Your task to perform on an android device: open wifi settings Image 0: 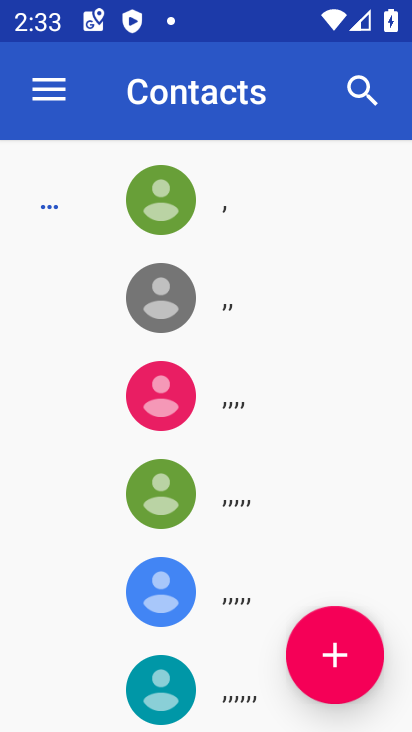
Step 0: press home button
Your task to perform on an android device: open wifi settings Image 1: 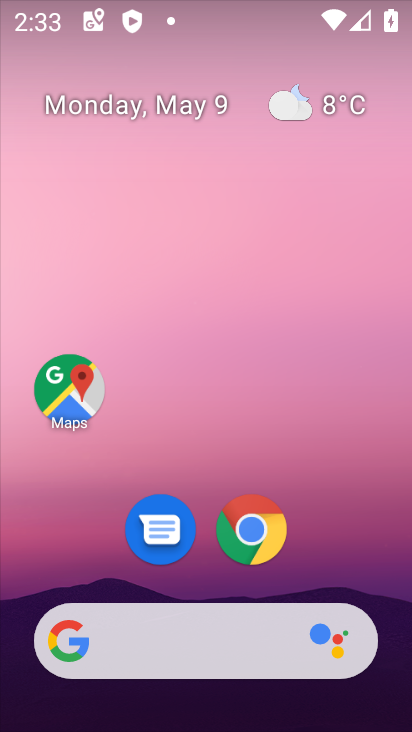
Step 1: drag from (288, 711) to (372, 0)
Your task to perform on an android device: open wifi settings Image 2: 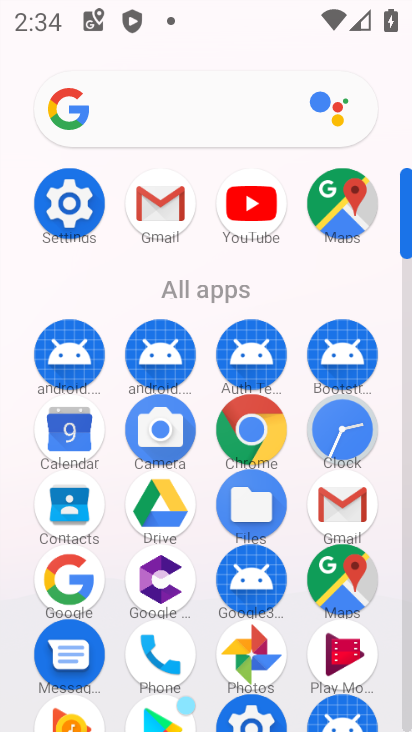
Step 2: click (94, 182)
Your task to perform on an android device: open wifi settings Image 3: 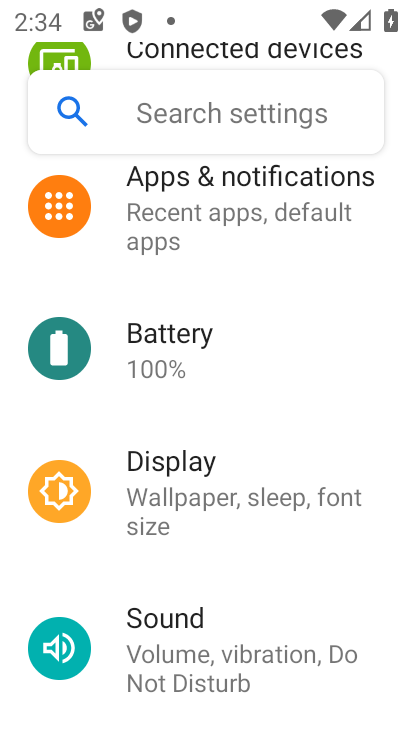
Step 3: drag from (227, 281) to (193, 650)
Your task to perform on an android device: open wifi settings Image 4: 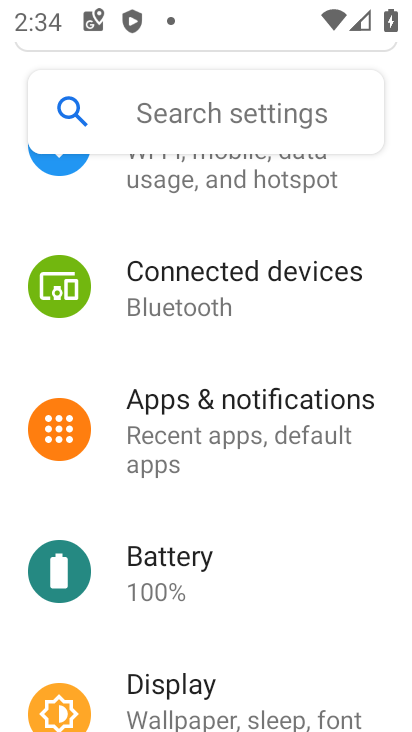
Step 4: drag from (311, 244) to (255, 689)
Your task to perform on an android device: open wifi settings Image 5: 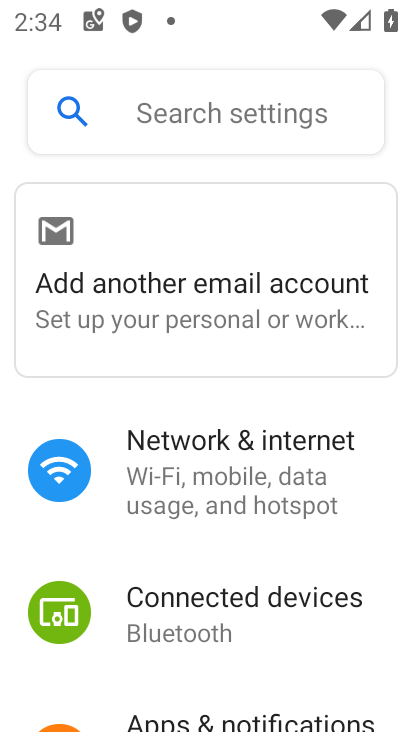
Step 5: click (248, 504)
Your task to perform on an android device: open wifi settings Image 6: 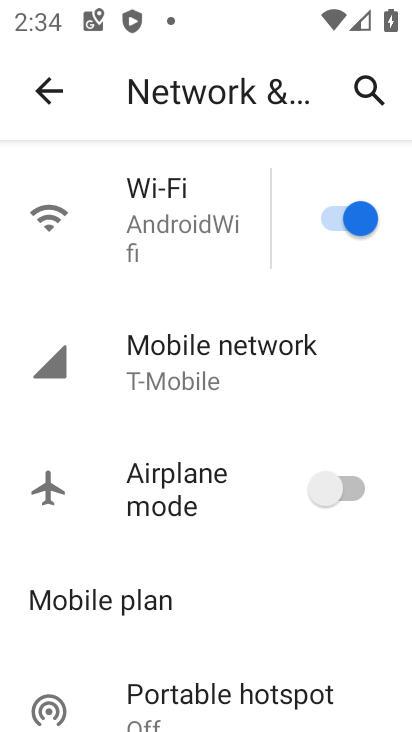
Step 6: click (185, 218)
Your task to perform on an android device: open wifi settings Image 7: 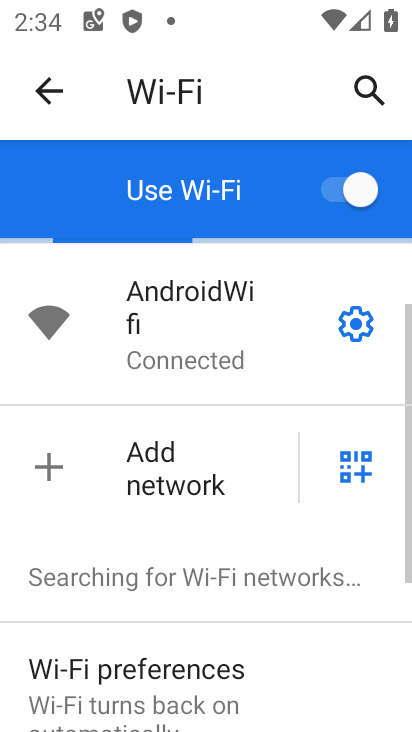
Step 7: click (354, 319)
Your task to perform on an android device: open wifi settings Image 8: 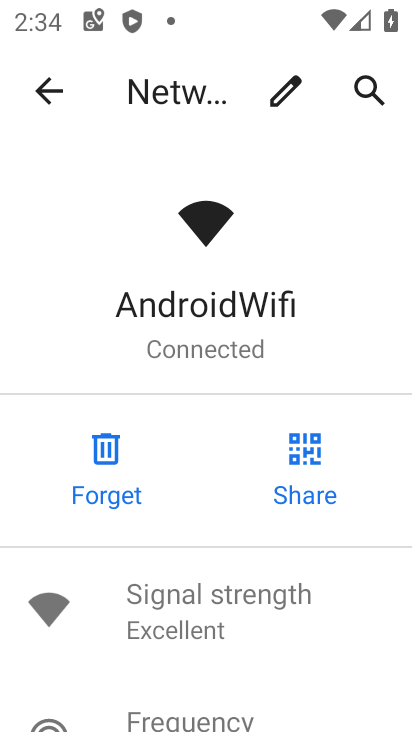
Step 8: task complete